Your task to perform on an android device: install app "Gmail" Image 0: 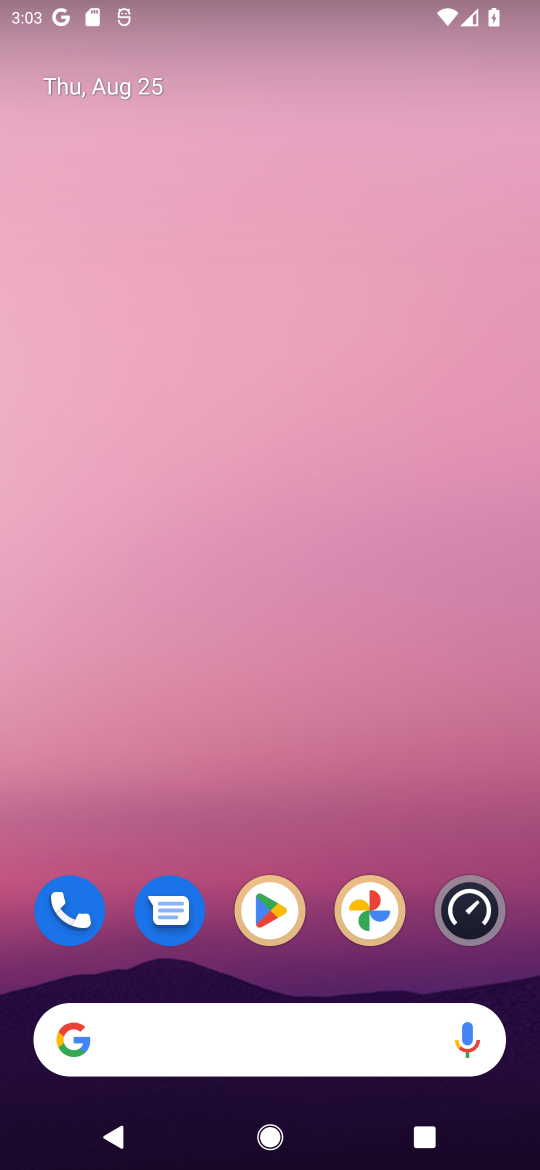
Step 0: drag from (341, 956) to (169, 58)
Your task to perform on an android device: install app "Gmail" Image 1: 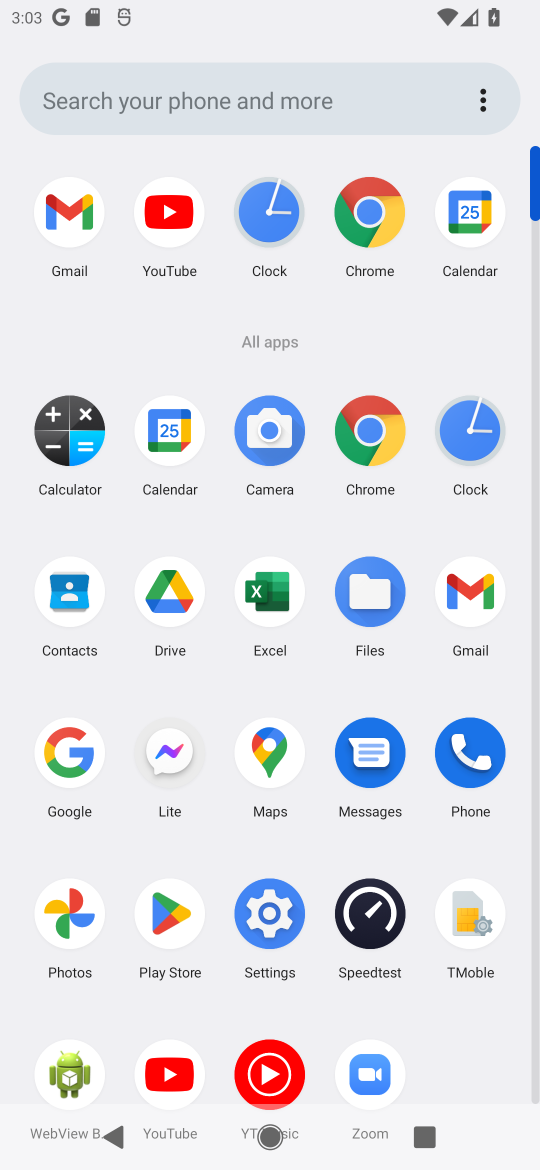
Step 1: click (155, 920)
Your task to perform on an android device: install app "Gmail" Image 2: 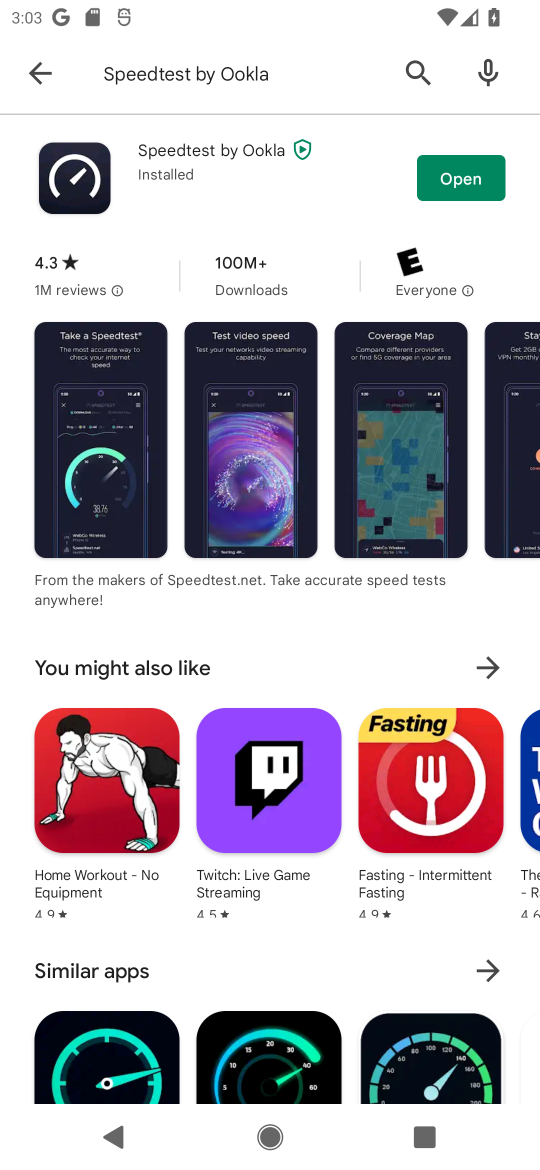
Step 2: press back button
Your task to perform on an android device: install app "Gmail" Image 3: 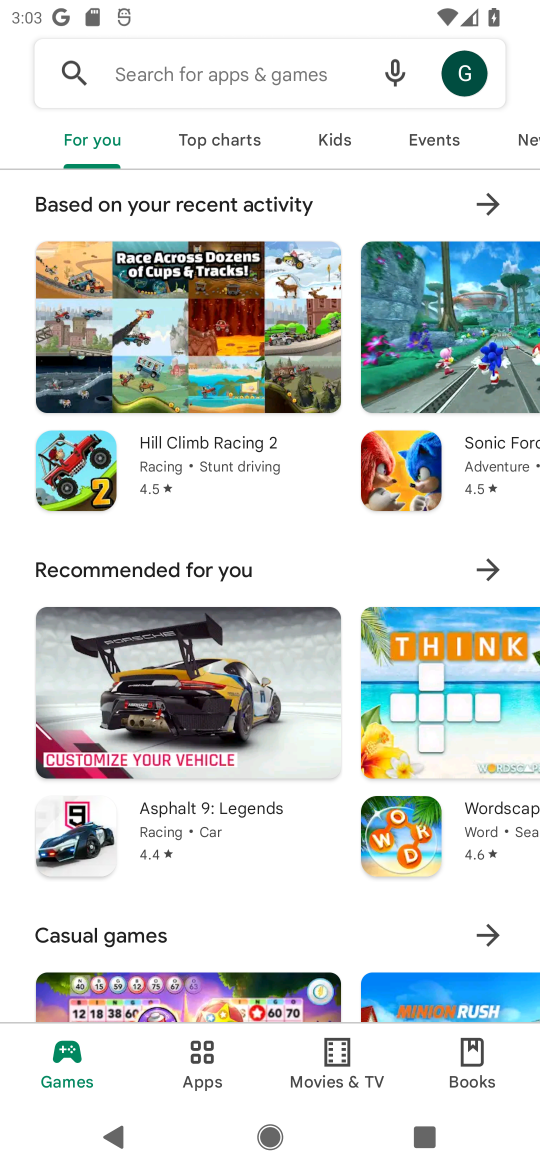
Step 3: click (242, 85)
Your task to perform on an android device: install app "Gmail" Image 4: 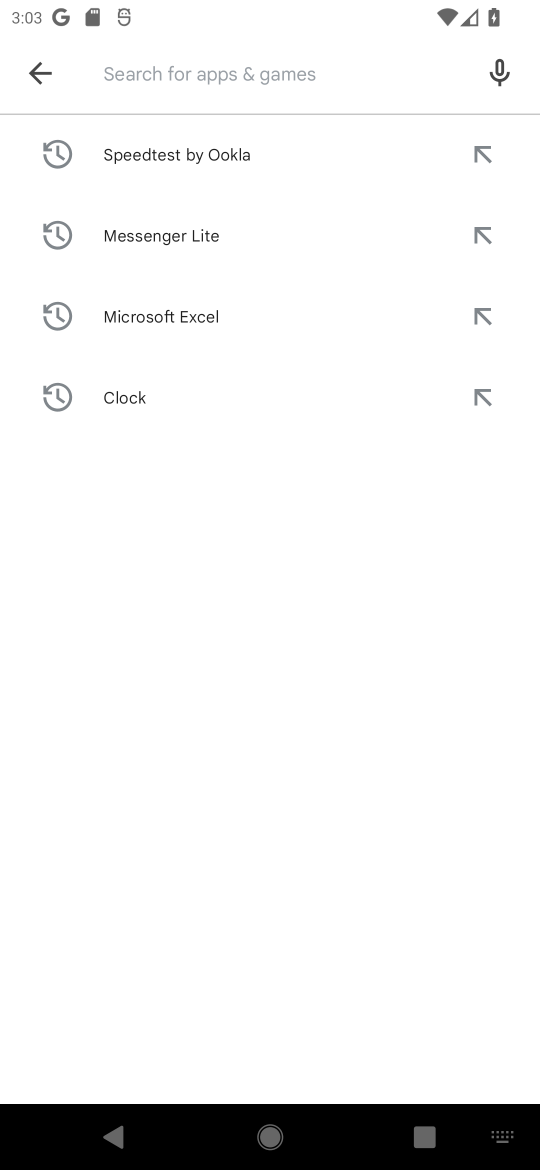
Step 4: type "Gmail"
Your task to perform on an android device: install app "Gmail" Image 5: 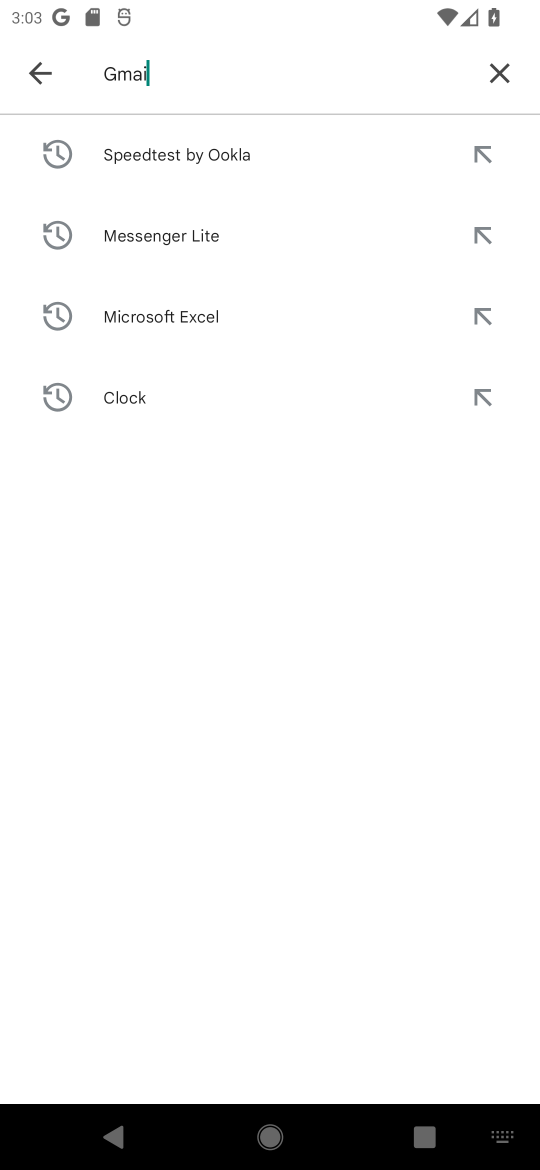
Step 5: press enter
Your task to perform on an android device: install app "Gmail" Image 6: 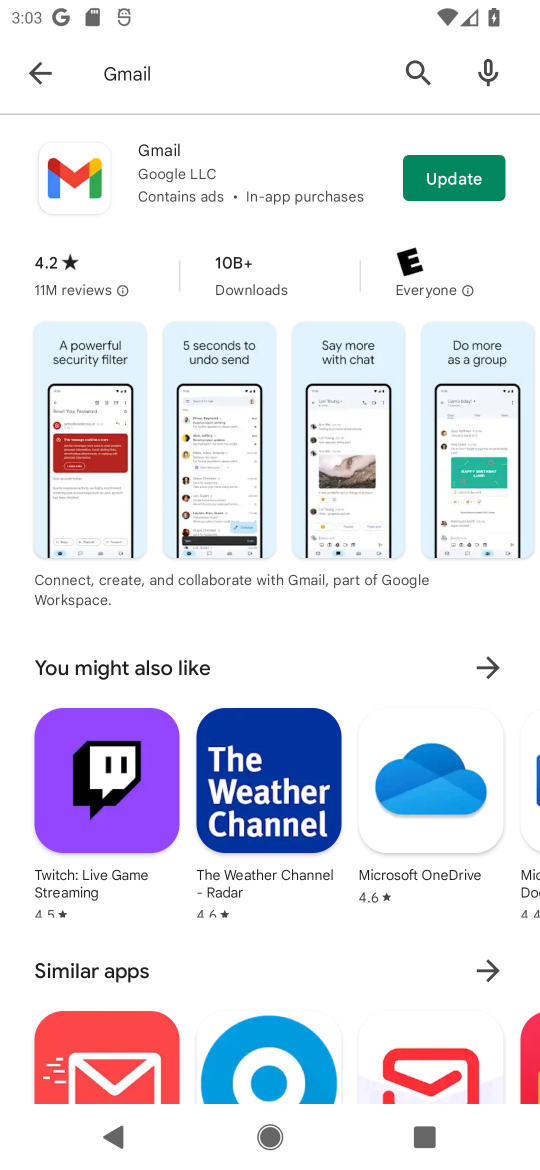
Step 6: click (478, 166)
Your task to perform on an android device: install app "Gmail" Image 7: 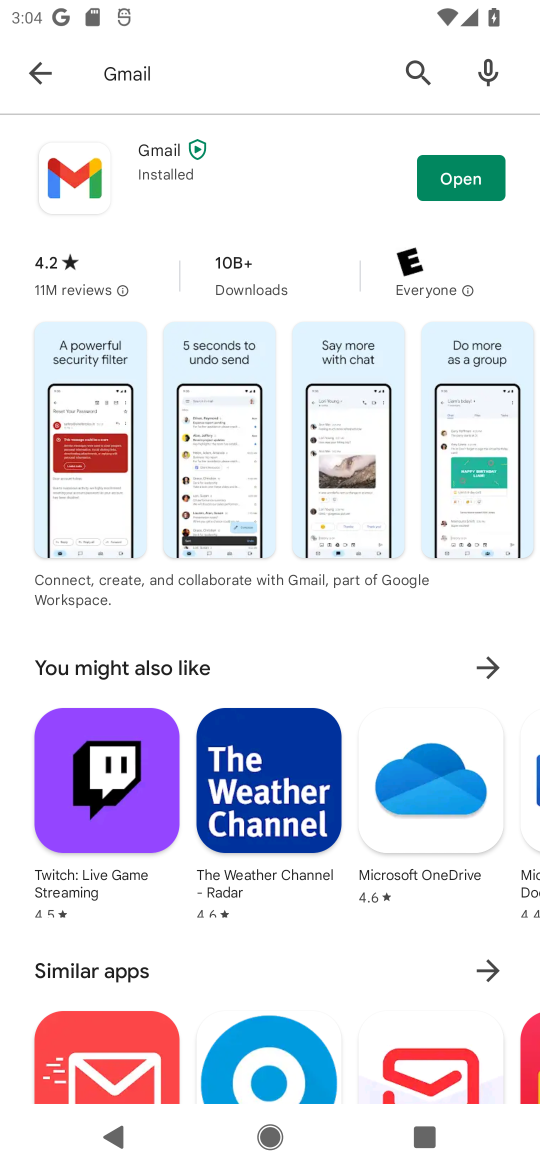
Step 7: click (456, 180)
Your task to perform on an android device: install app "Gmail" Image 8: 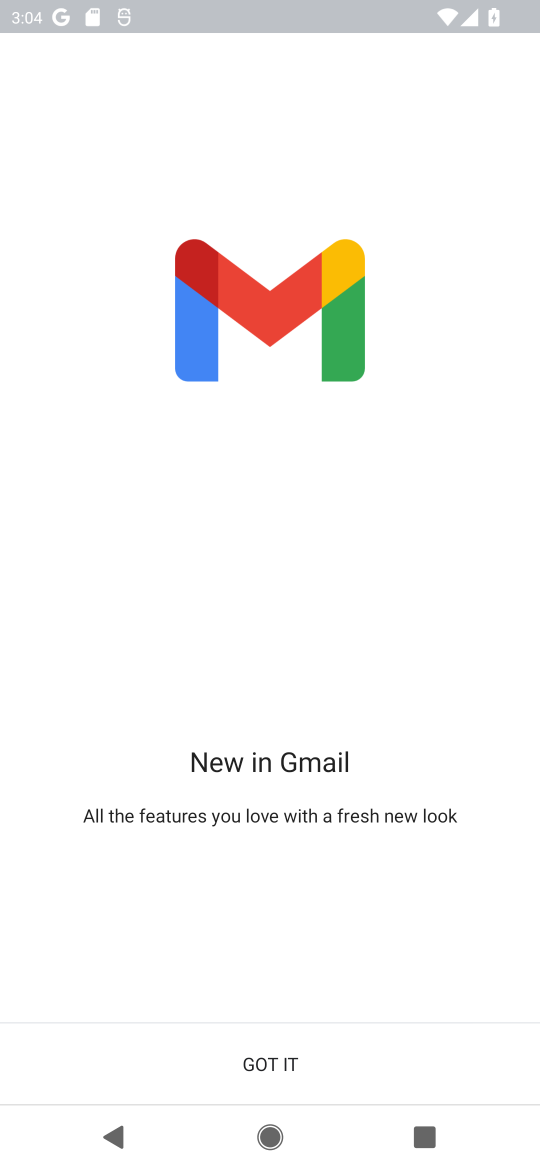
Step 8: task complete